Your task to perform on an android device: find photos in the google photos app Image 0: 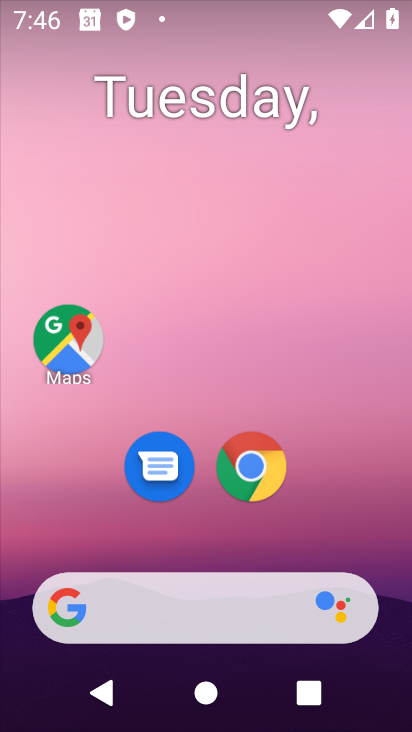
Step 0: press home button
Your task to perform on an android device: find photos in the google photos app Image 1: 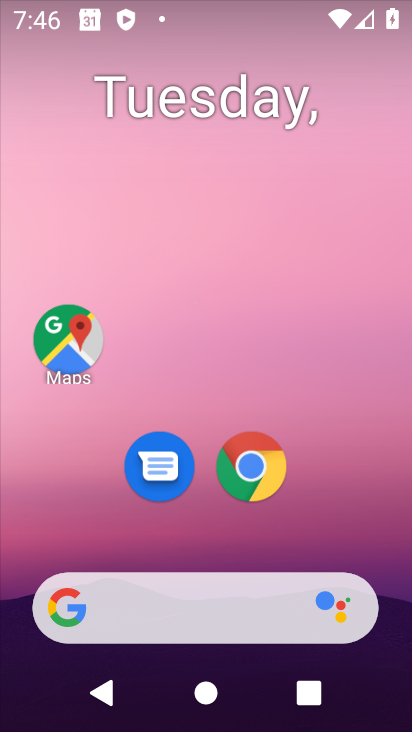
Step 1: drag from (41, 232) to (98, 103)
Your task to perform on an android device: find photos in the google photos app Image 2: 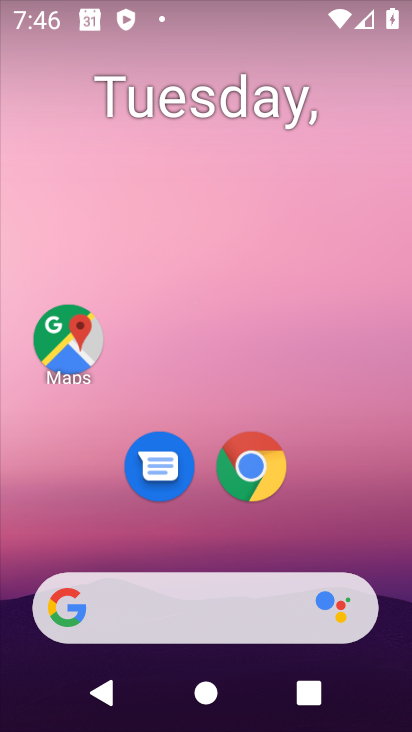
Step 2: drag from (54, 369) to (120, 184)
Your task to perform on an android device: find photos in the google photos app Image 3: 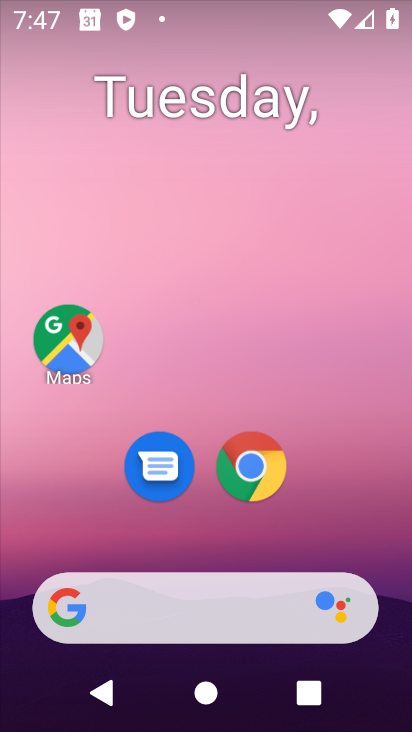
Step 3: drag from (263, 615) to (281, 83)
Your task to perform on an android device: find photos in the google photos app Image 4: 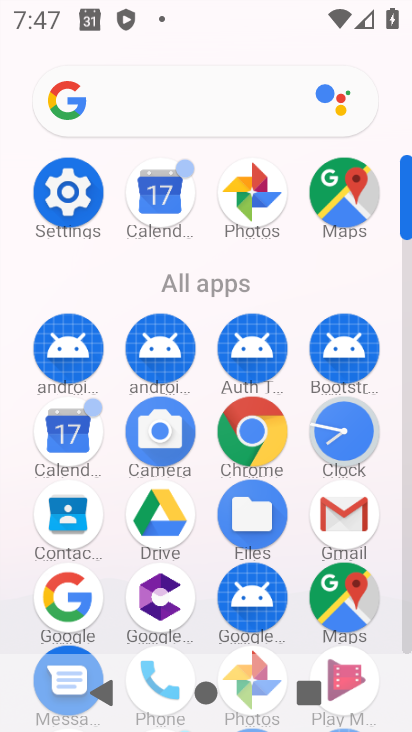
Step 4: click (243, 665)
Your task to perform on an android device: find photos in the google photos app Image 5: 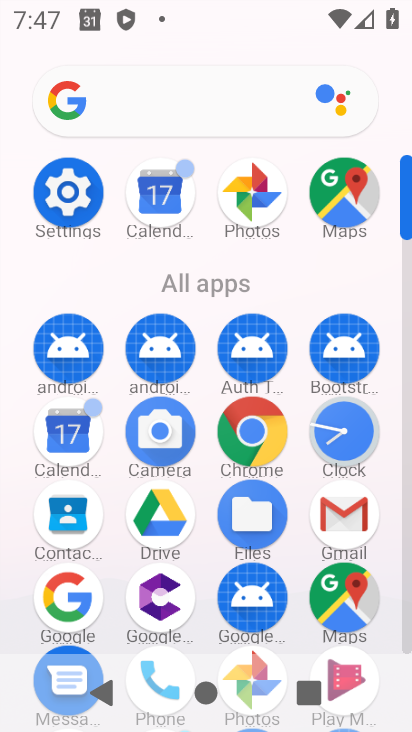
Step 5: drag from (52, 490) to (206, 221)
Your task to perform on an android device: find photos in the google photos app Image 6: 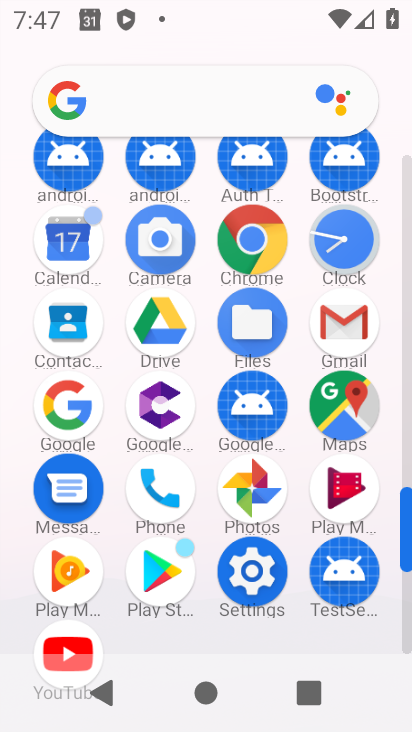
Step 6: click (252, 567)
Your task to perform on an android device: find photos in the google photos app Image 7: 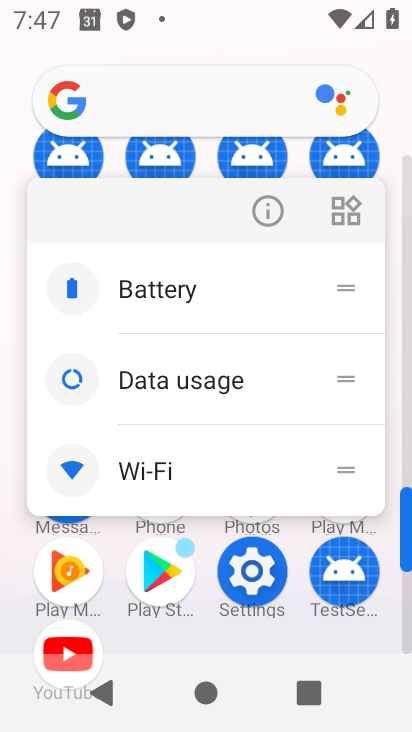
Step 7: press back button
Your task to perform on an android device: find photos in the google photos app Image 8: 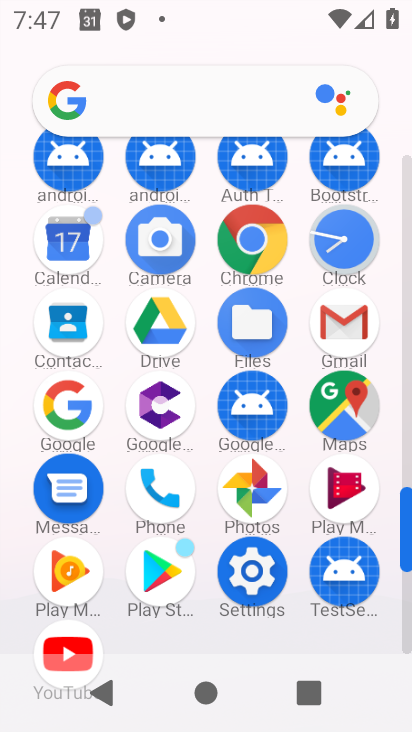
Step 8: click (268, 470)
Your task to perform on an android device: find photos in the google photos app Image 9: 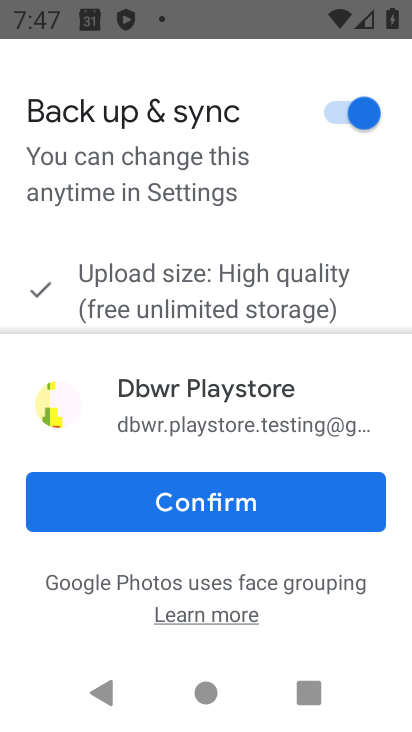
Step 9: click (260, 493)
Your task to perform on an android device: find photos in the google photos app Image 10: 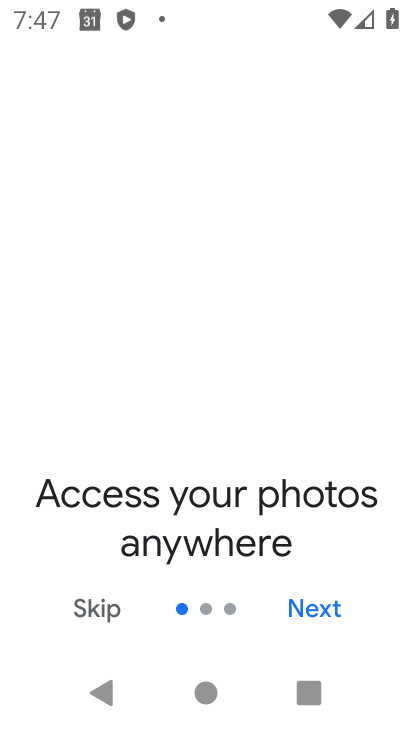
Step 10: click (302, 613)
Your task to perform on an android device: find photos in the google photos app Image 11: 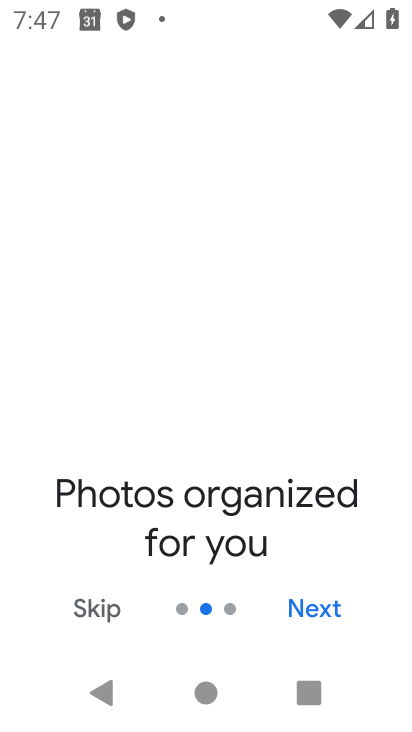
Step 11: click (302, 613)
Your task to perform on an android device: find photos in the google photos app Image 12: 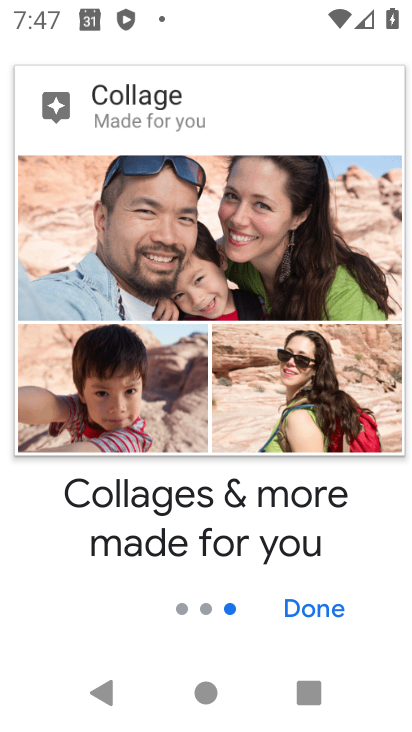
Step 12: click (302, 613)
Your task to perform on an android device: find photos in the google photos app Image 13: 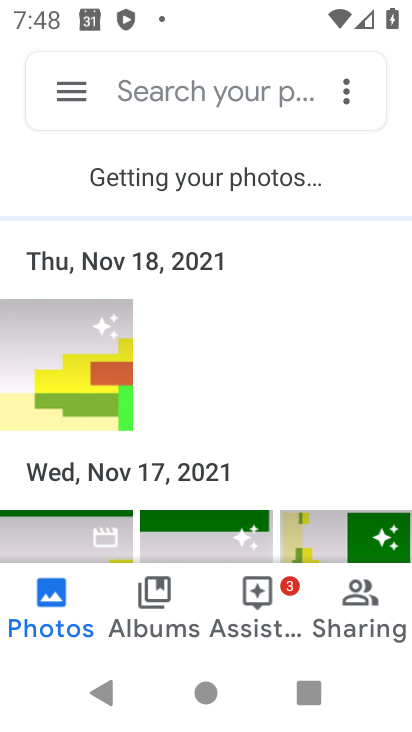
Step 13: task complete